Your task to perform on an android device: Go to eBay Image 0: 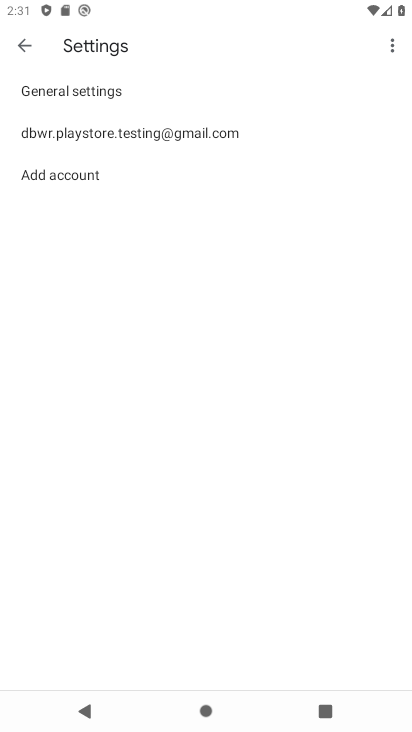
Step 0: press home button
Your task to perform on an android device: Go to eBay Image 1: 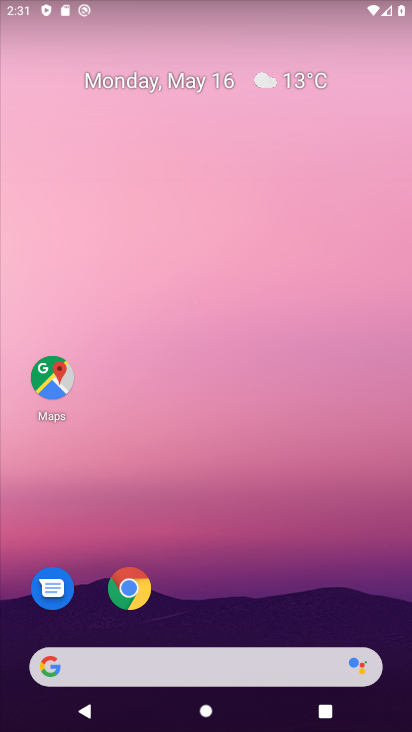
Step 1: click (157, 657)
Your task to perform on an android device: Go to eBay Image 2: 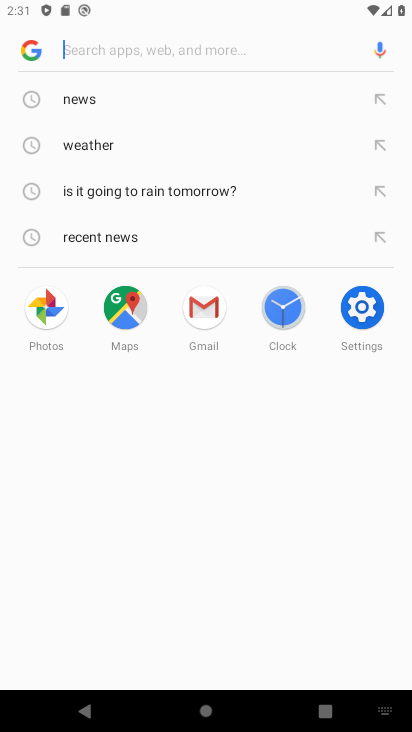
Step 2: type "ebay"
Your task to perform on an android device: Go to eBay Image 3: 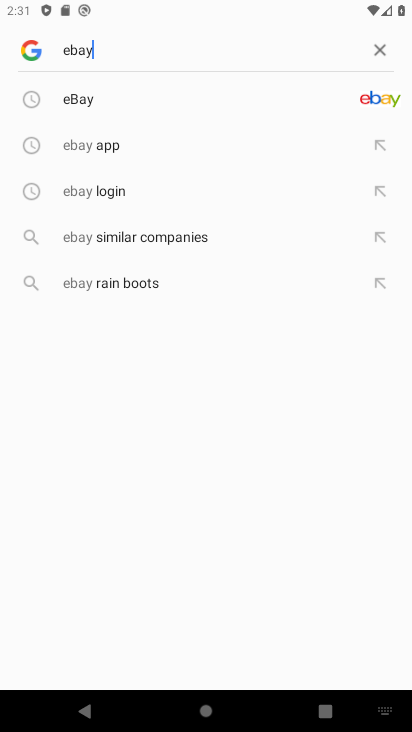
Step 3: click (380, 94)
Your task to perform on an android device: Go to eBay Image 4: 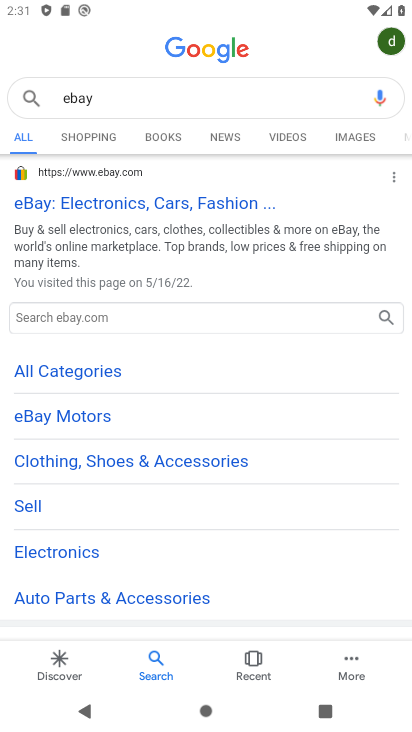
Step 4: task complete